Your task to perform on an android device: toggle data saver in the chrome app Image 0: 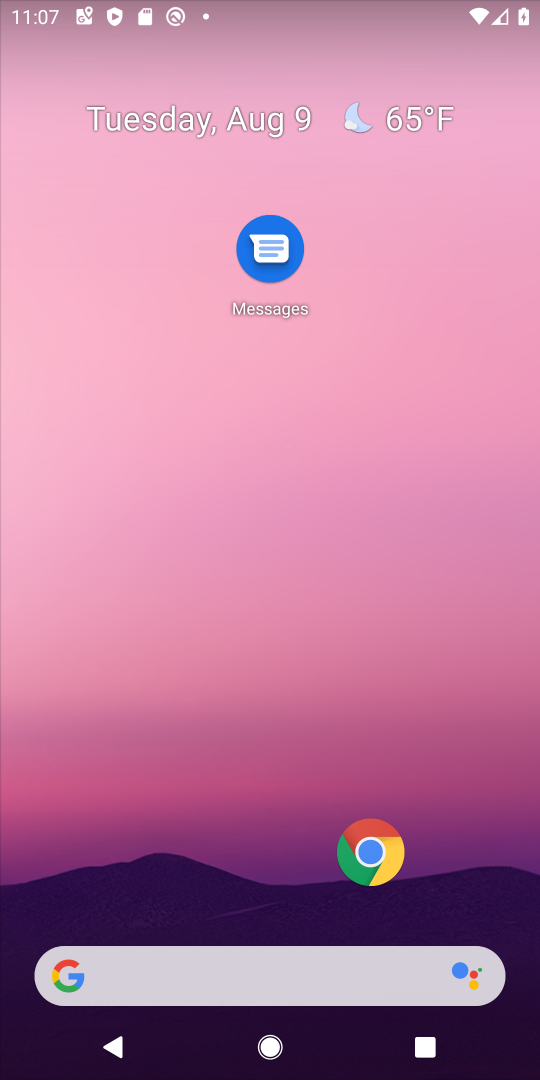
Step 0: click (361, 848)
Your task to perform on an android device: toggle data saver in the chrome app Image 1: 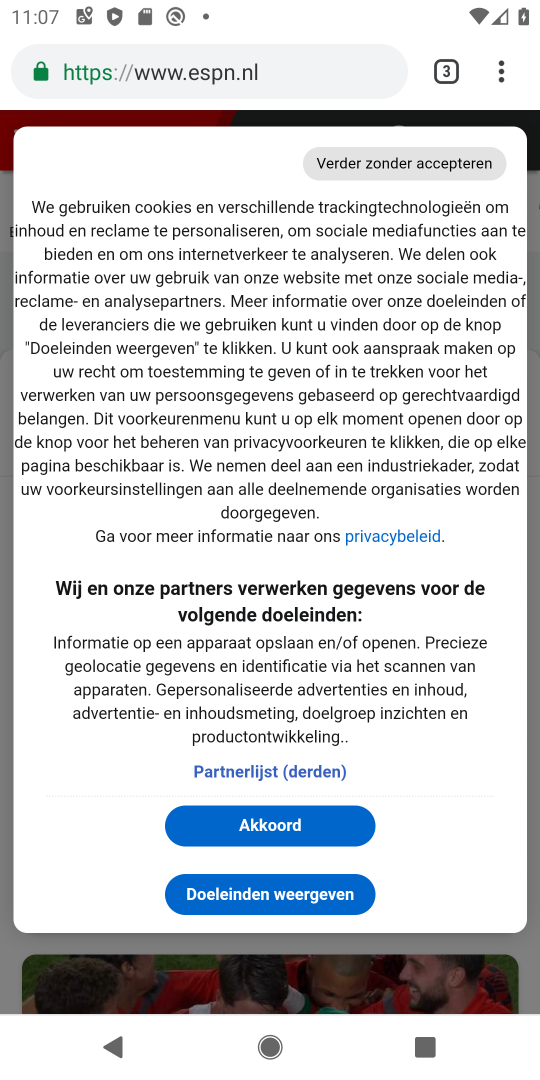
Step 1: click (512, 78)
Your task to perform on an android device: toggle data saver in the chrome app Image 2: 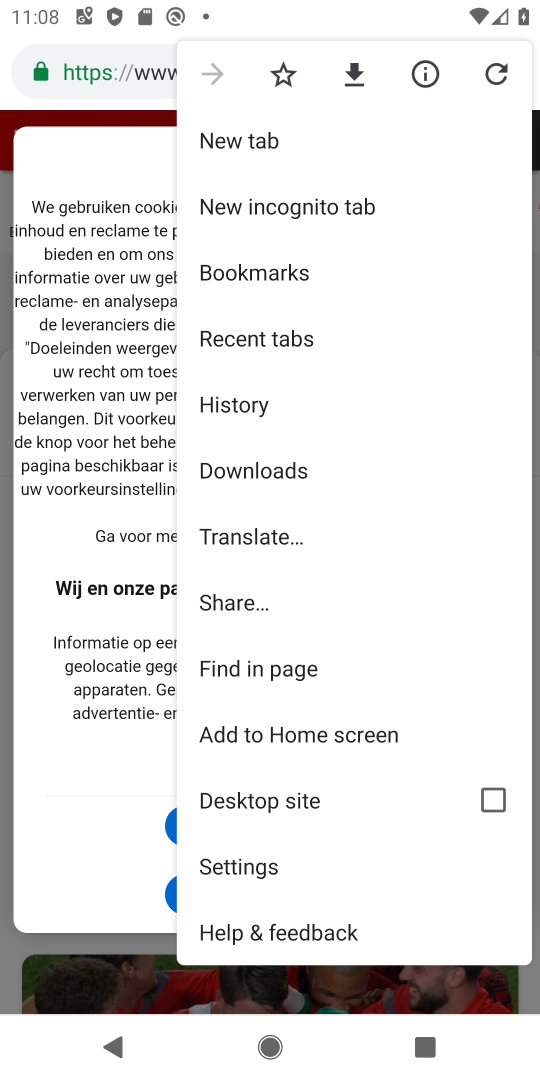
Step 2: click (282, 856)
Your task to perform on an android device: toggle data saver in the chrome app Image 3: 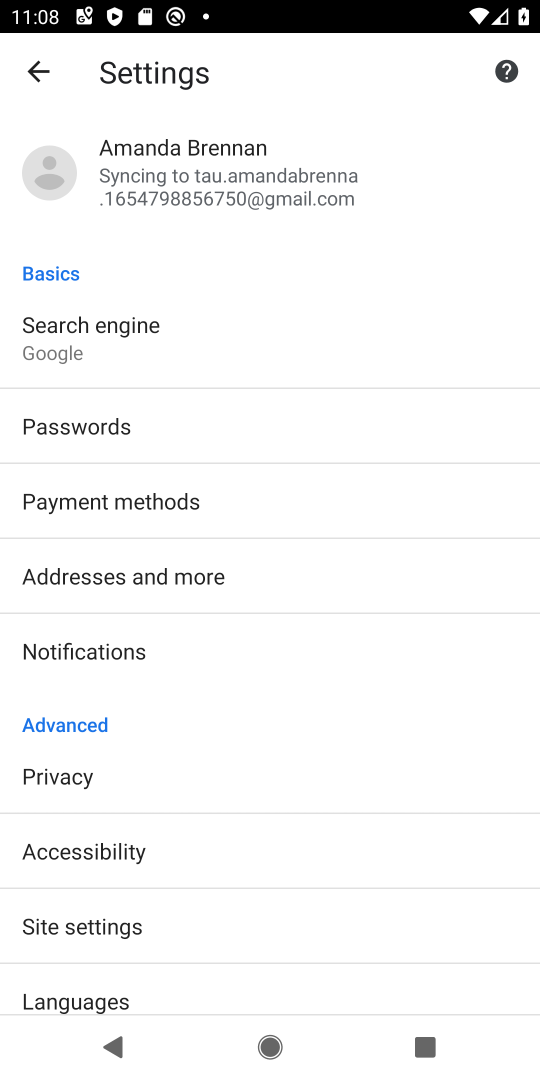
Step 3: click (287, 912)
Your task to perform on an android device: toggle data saver in the chrome app Image 4: 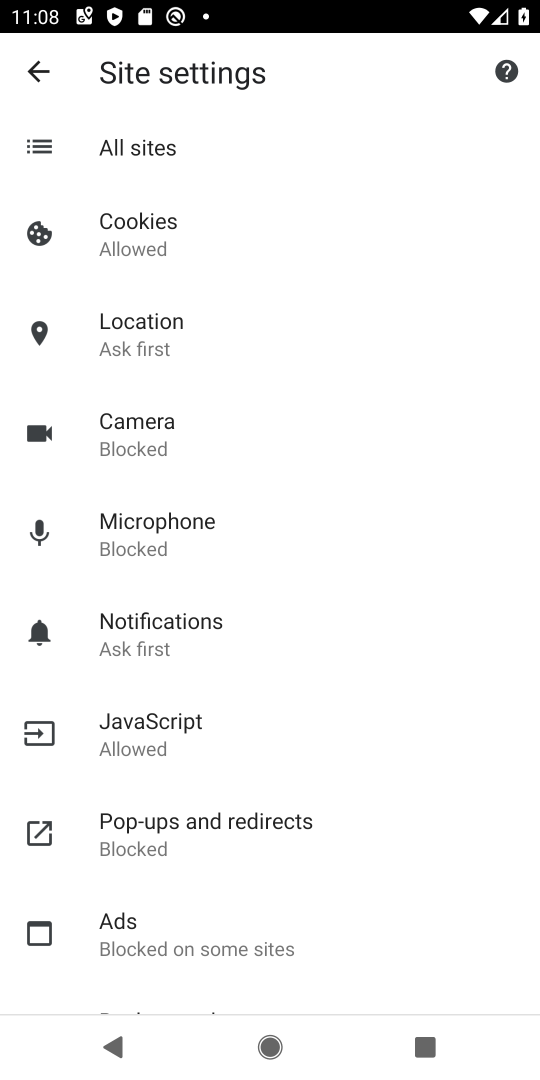
Step 4: drag from (204, 267) to (327, 907)
Your task to perform on an android device: toggle data saver in the chrome app Image 5: 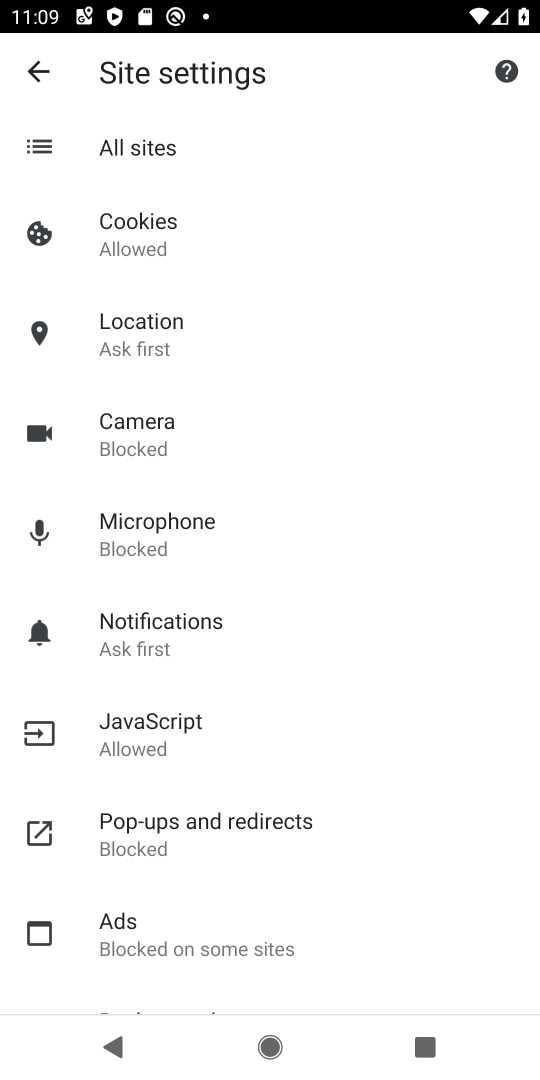
Step 5: click (28, 75)
Your task to perform on an android device: toggle data saver in the chrome app Image 6: 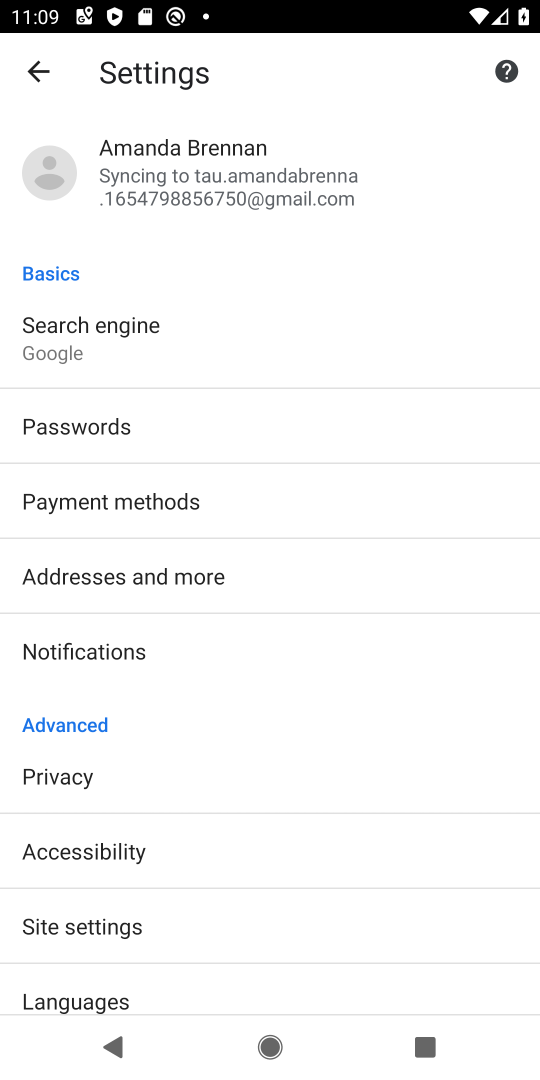
Step 6: drag from (212, 964) to (210, 233)
Your task to perform on an android device: toggle data saver in the chrome app Image 7: 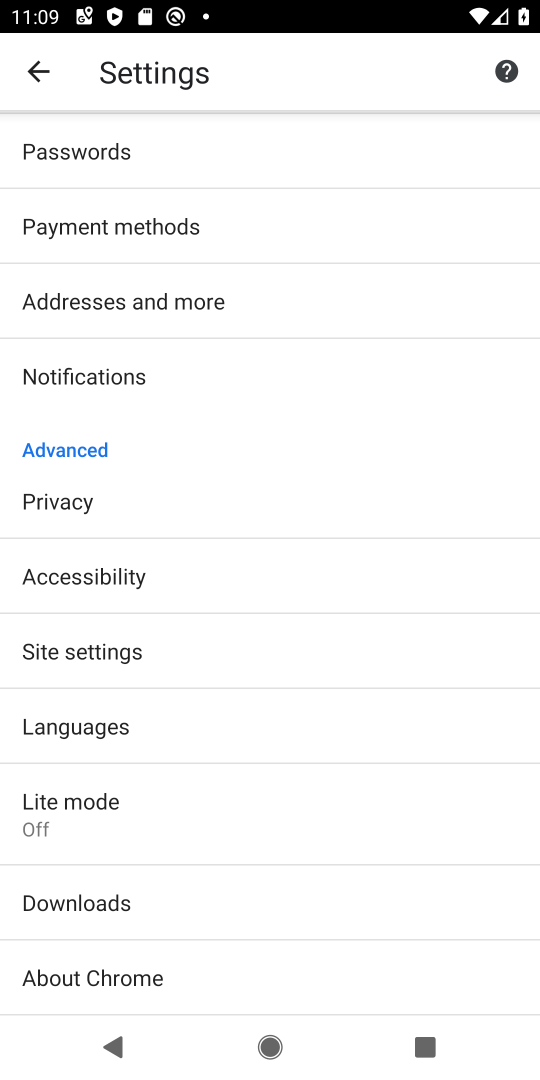
Step 7: click (126, 828)
Your task to perform on an android device: toggle data saver in the chrome app Image 8: 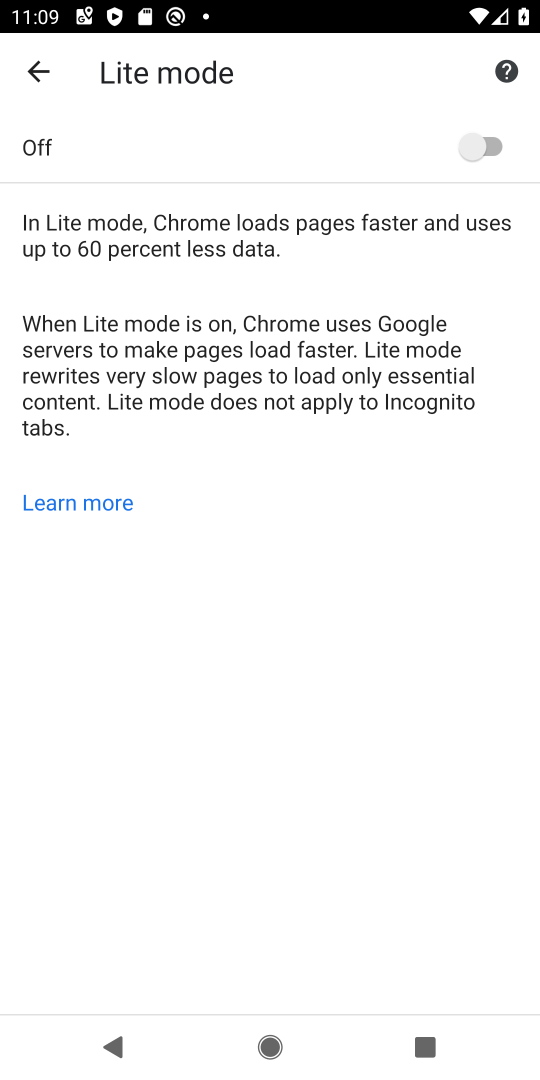
Step 8: click (482, 143)
Your task to perform on an android device: toggle data saver in the chrome app Image 9: 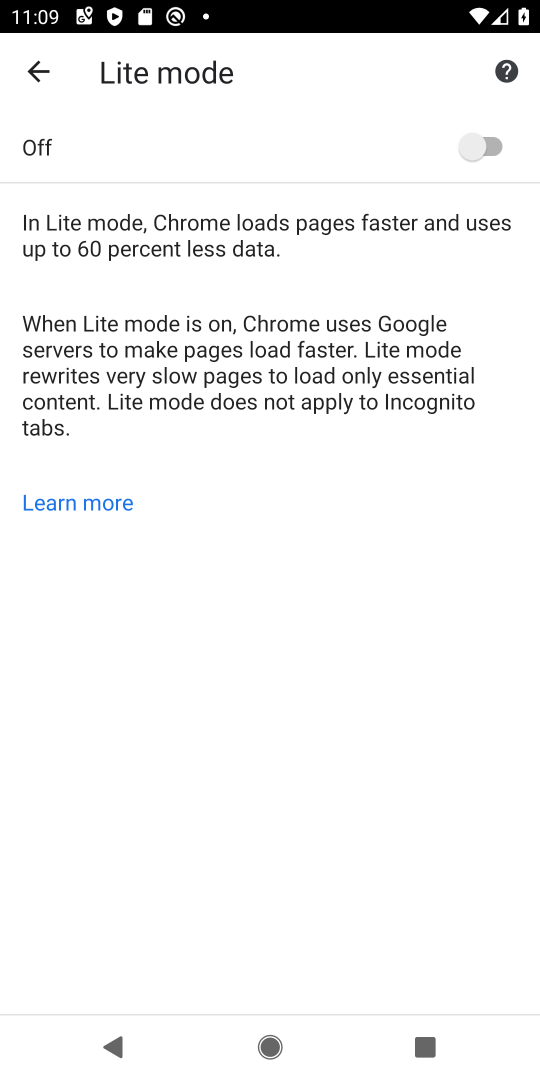
Step 9: click (482, 143)
Your task to perform on an android device: toggle data saver in the chrome app Image 10: 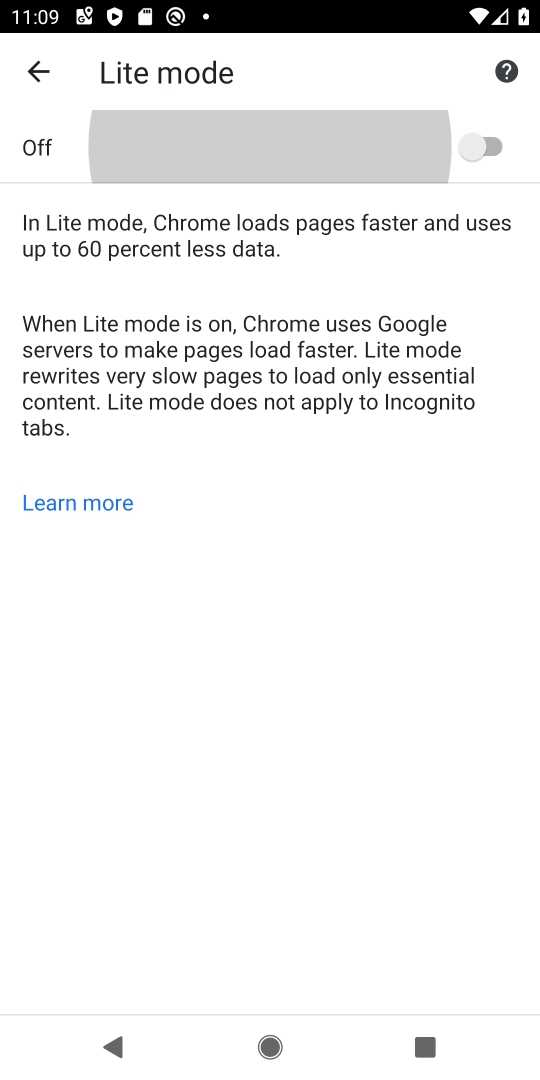
Step 10: click (482, 143)
Your task to perform on an android device: toggle data saver in the chrome app Image 11: 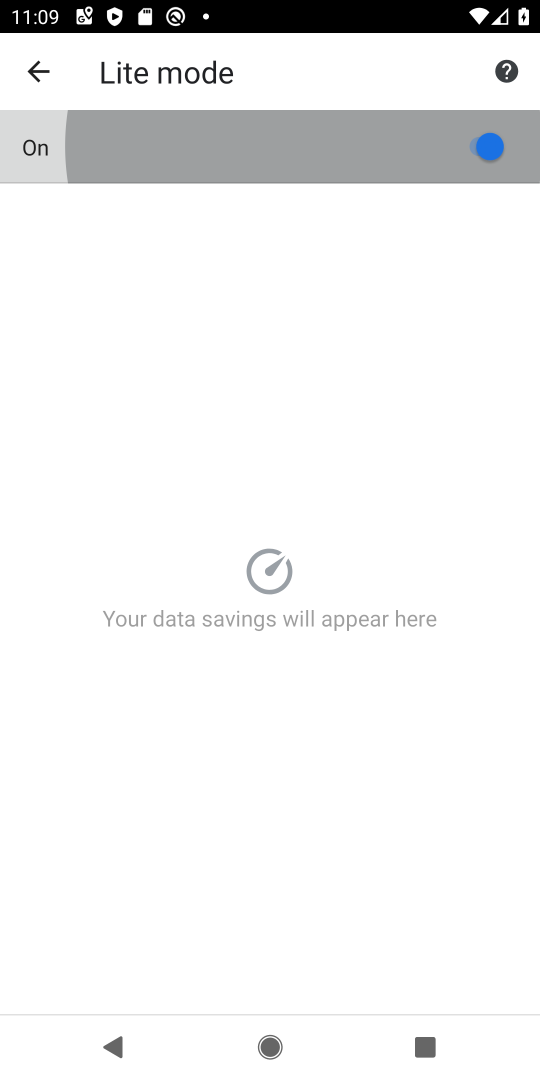
Step 11: click (482, 143)
Your task to perform on an android device: toggle data saver in the chrome app Image 12: 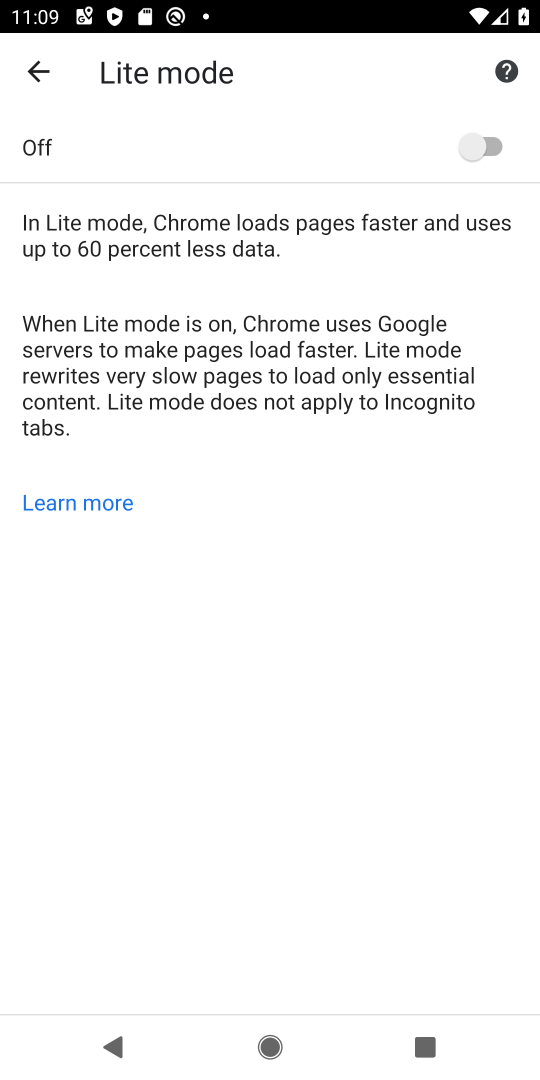
Step 12: click (482, 143)
Your task to perform on an android device: toggle data saver in the chrome app Image 13: 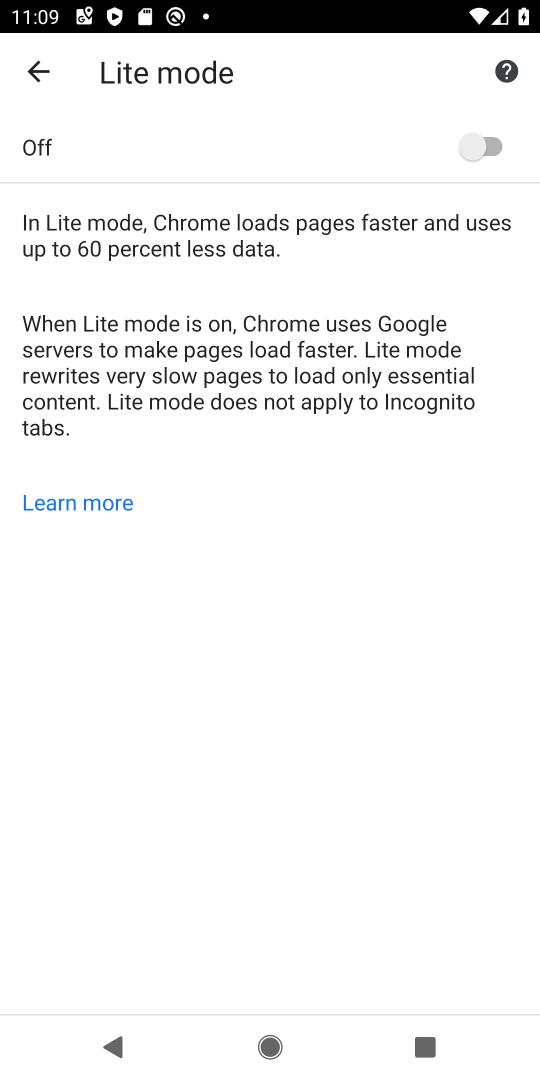
Step 13: task complete